Your task to perform on an android device: Go to notification settings Image 0: 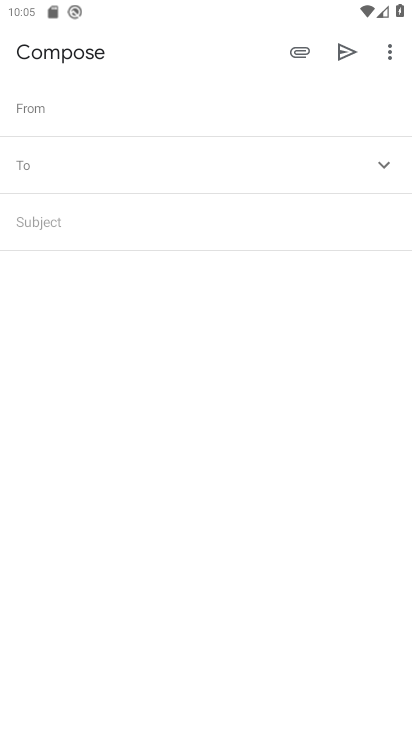
Step 0: drag from (352, 556) to (349, 379)
Your task to perform on an android device: Go to notification settings Image 1: 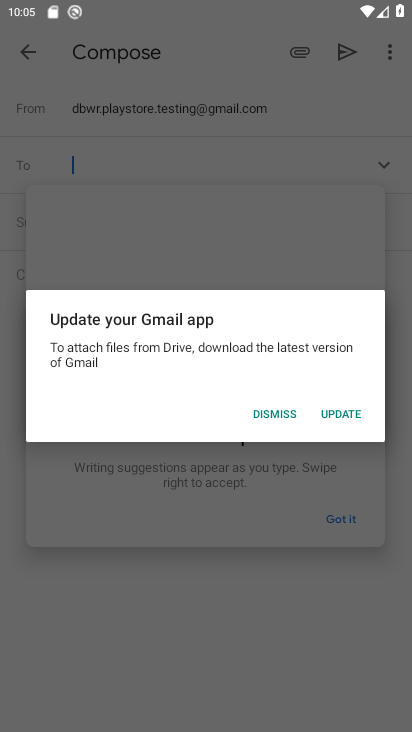
Step 1: press home button
Your task to perform on an android device: Go to notification settings Image 2: 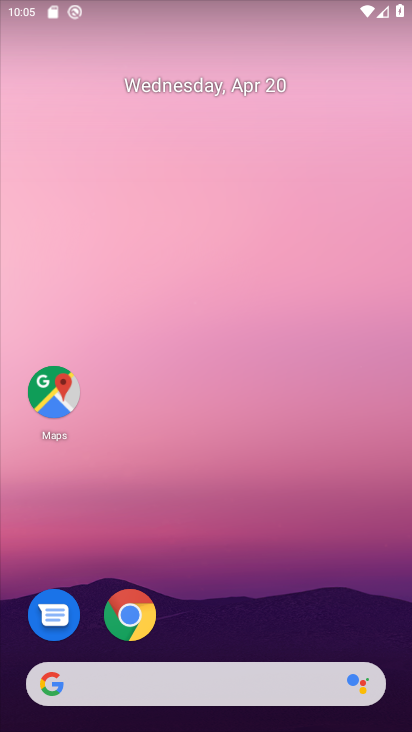
Step 2: drag from (325, 557) to (383, 171)
Your task to perform on an android device: Go to notification settings Image 3: 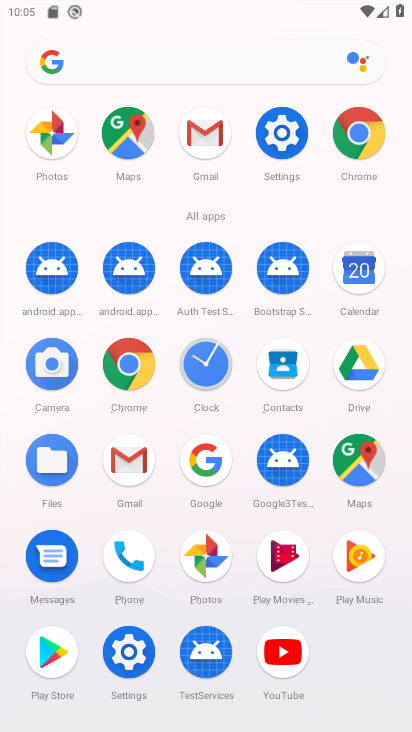
Step 3: click (140, 663)
Your task to perform on an android device: Go to notification settings Image 4: 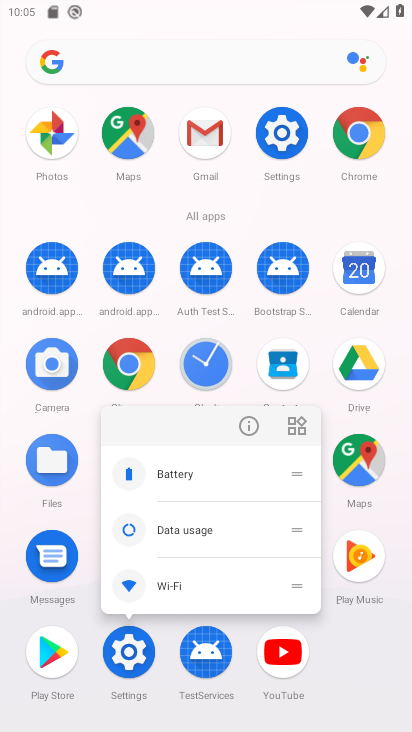
Step 4: click (139, 663)
Your task to perform on an android device: Go to notification settings Image 5: 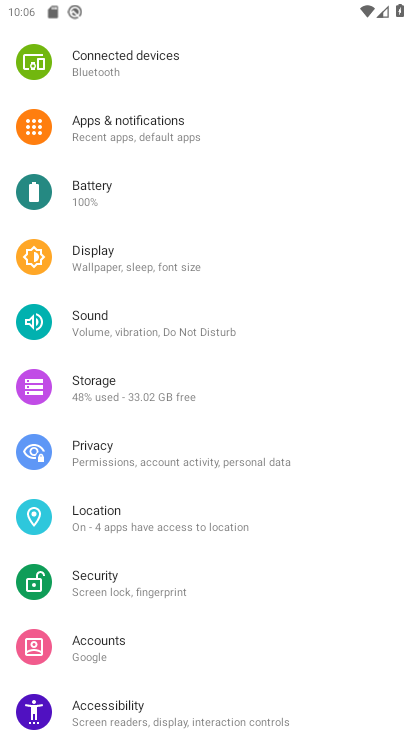
Step 5: click (124, 127)
Your task to perform on an android device: Go to notification settings Image 6: 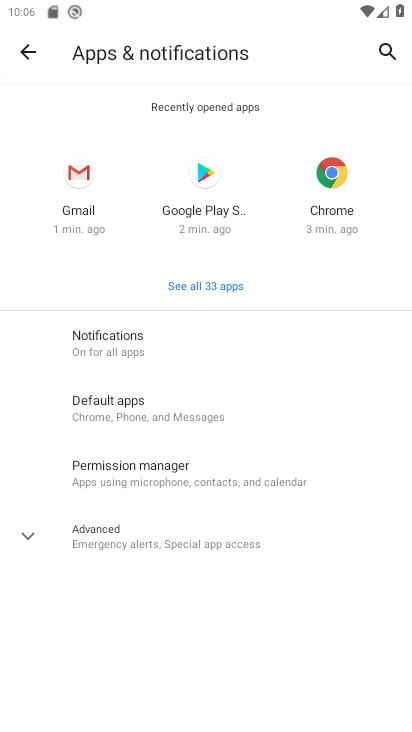
Step 6: click (133, 343)
Your task to perform on an android device: Go to notification settings Image 7: 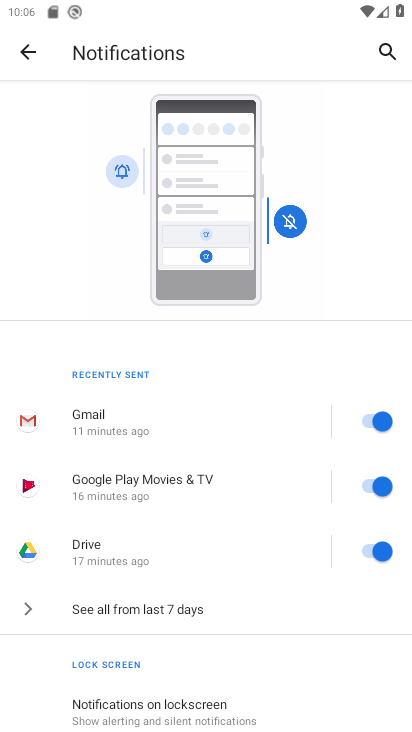
Step 7: drag from (241, 592) to (249, 363)
Your task to perform on an android device: Go to notification settings Image 8: 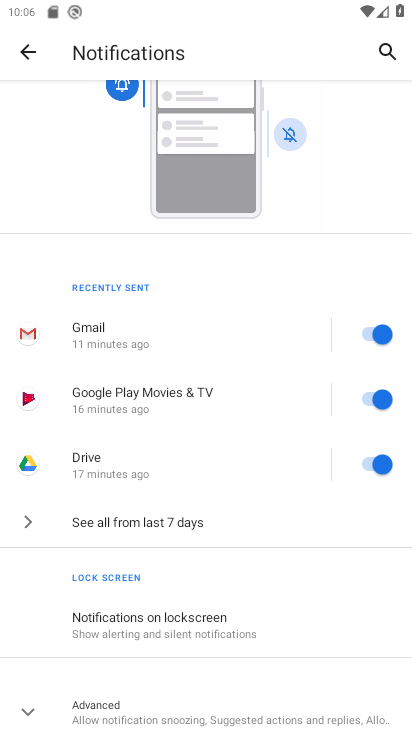
Step 8: drag from (247, 596) to (294, 266)
Your task to perform on an android device: Go to notification settings Image 9: 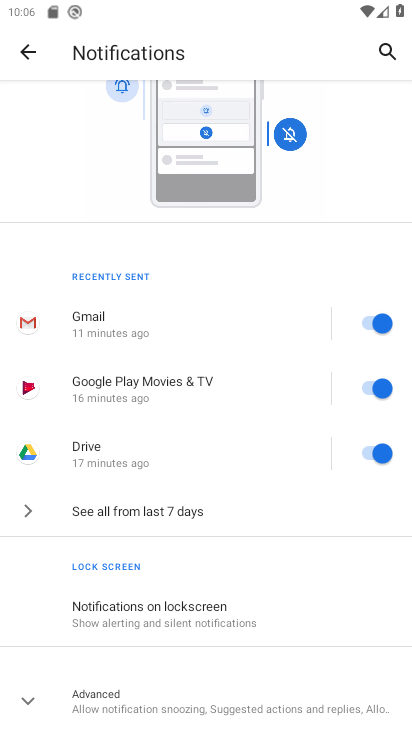
Step 9: click (162, 691)
Your task to perform on an android device: Go to notification settings Image 10: 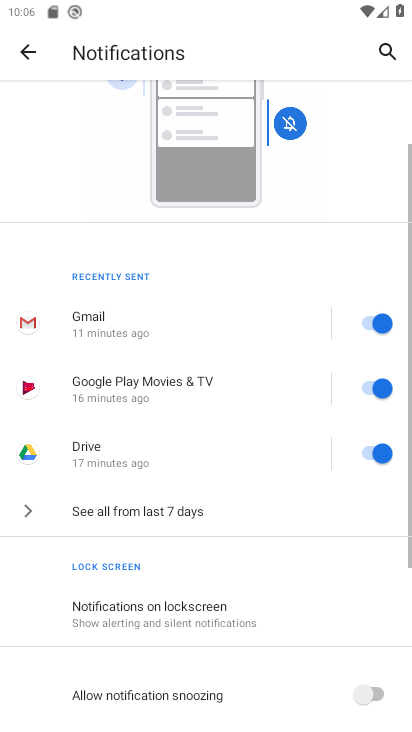
Step 10: task complete